Your task to perform on an android device: Open my contact list Image 0: 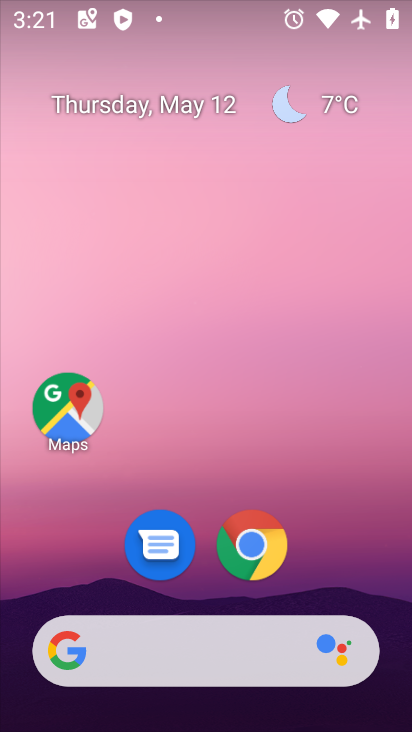
Step 0: drag from (394, 621) to (317, 165)
Your task to perform on an android device: Open my contact list Image 1: 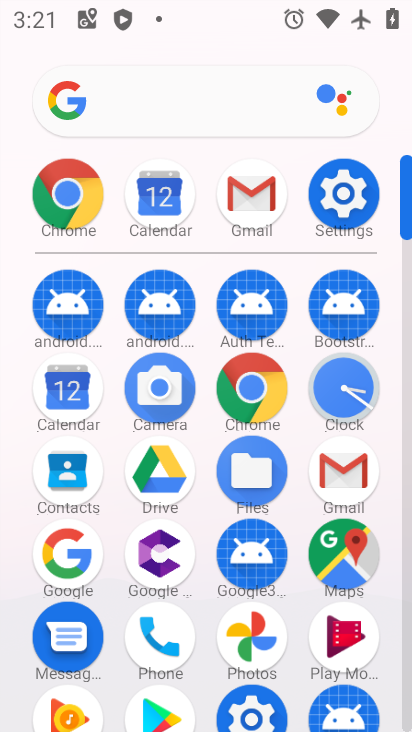
Step 1: click (407, 700)
Your task to perform on an android device: Open my contact list Image 2: 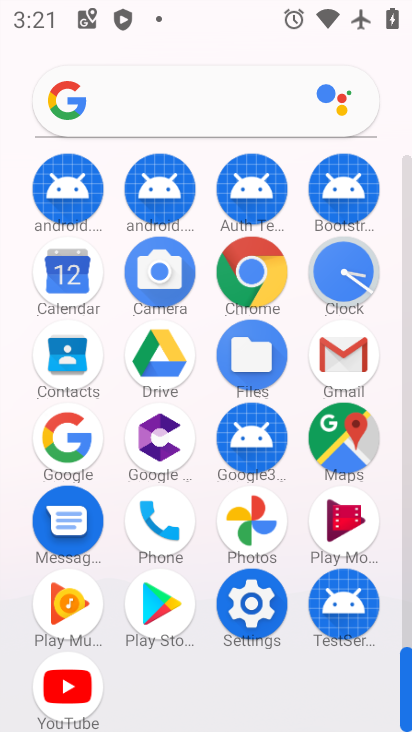
Step 2: click (68, 354)
Your task to perform on an android device: Open my contact list Image 3: 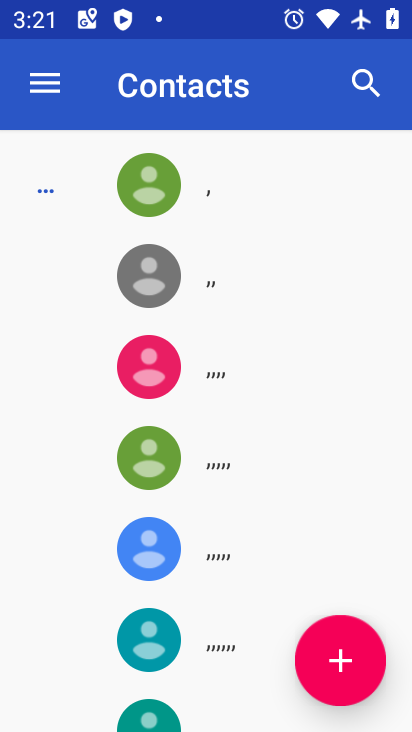
Step 3: task complete